Your task to perform on an android device: Open Google Chrome Image 0: 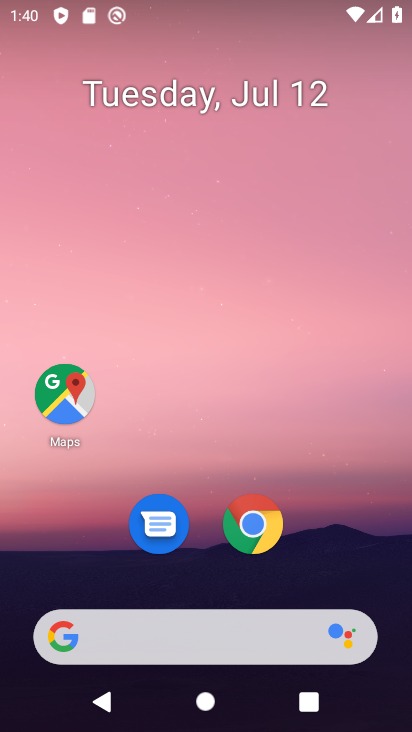
Step 0: click (274, 527)
Your task to perform on an android device: Open Google Chrome Image 1: 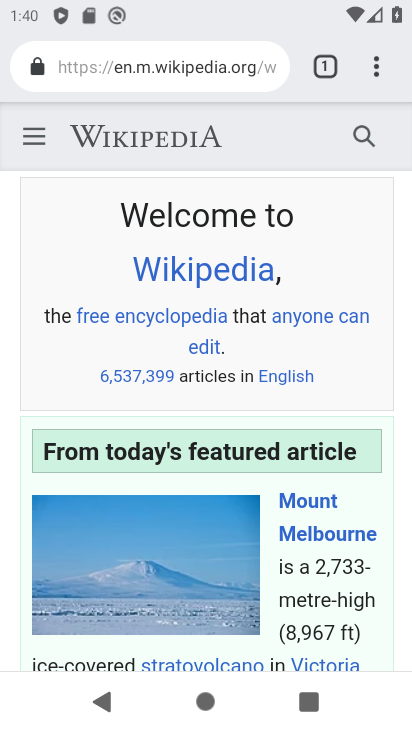
Step 1: task complete